Your task to perform on an android device: toggle translation in the chrome app Image 0: 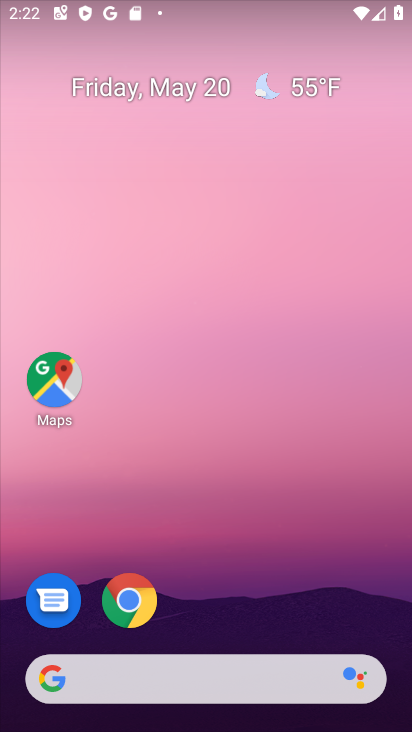
Step 0: click (137, 591)
Your task to perform on an android device: toggle translation in the chrome app Image 1: 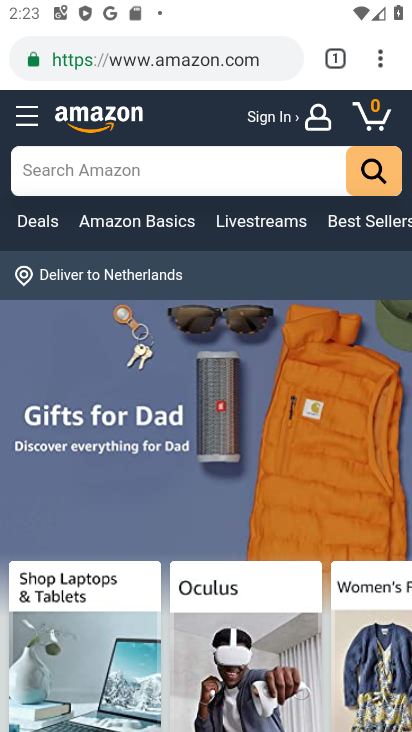
Step 1: click (383, 70)
Your task to perform on an android device: toggle translation in the chrome app Image 2: 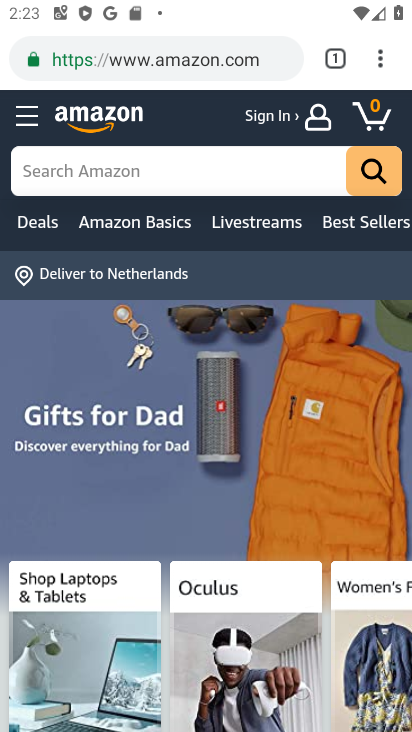
Step 2: task complete